Your task to perform on an android device: turn on javascript in the chrome app Image 0: 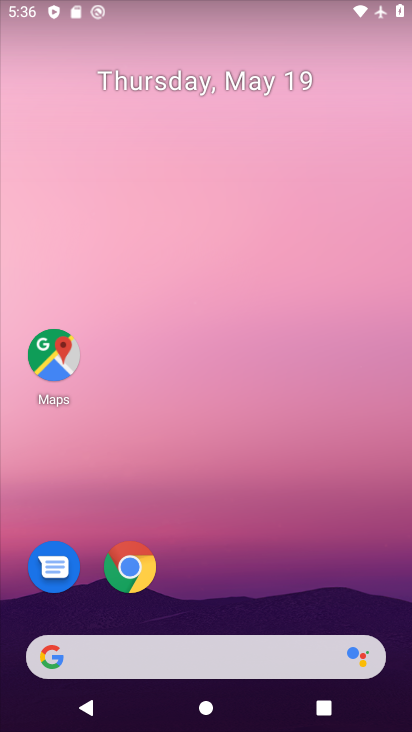
Step 0: drag from (319, 715) to (195, 91)
Your task to perform on an android device: turn on javascript in the chrome app Image 1: 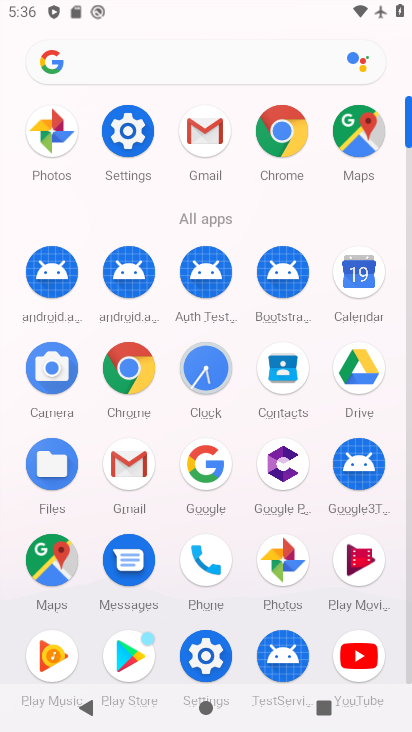
Step 1: click (263, 133)
Your task to perform on an android device: turn on javascript in the chrome app Image 2: 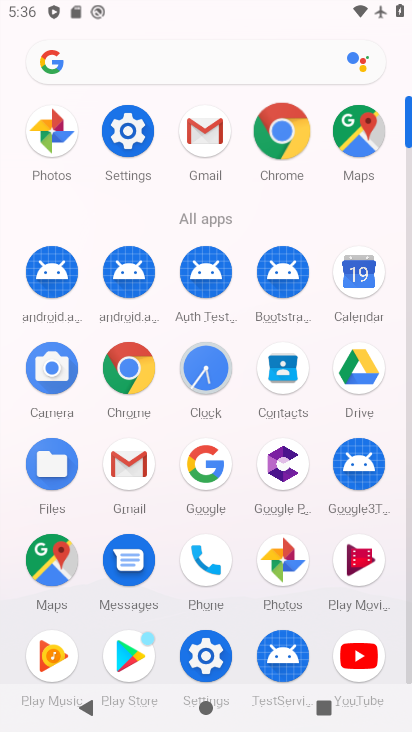
Step 2: click (263, 132)
Your task to perform on an android device: turn on javascript in the chrome app Image 3: 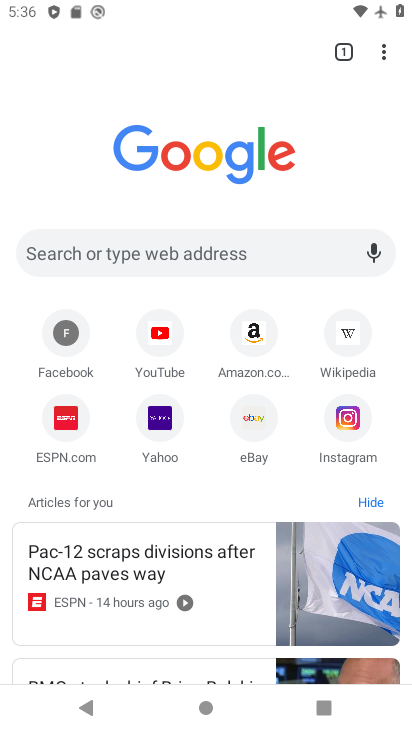
Step 3: drag from (383, 54) to (190, 436)
Your task to perform on an android device: turn on javascript in the chrome app Image 4: 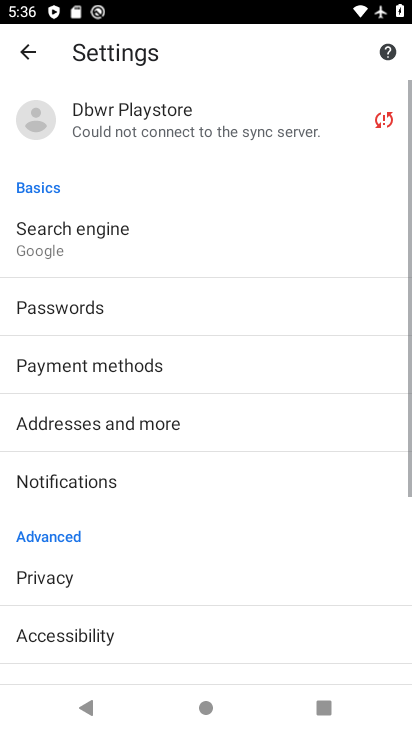
Step 4: drag from (82, 516) to (61, 190)
Your task to perform on an android device: turn on javascript in the chrome app Image 5: 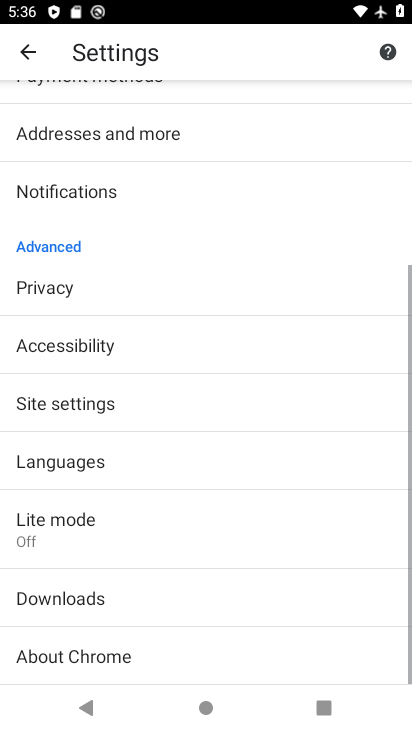
Step 5: drag from (100, 518) to (100, 78)
Your task to perform on an android device: turn on javascript in the chrome app Image 6: 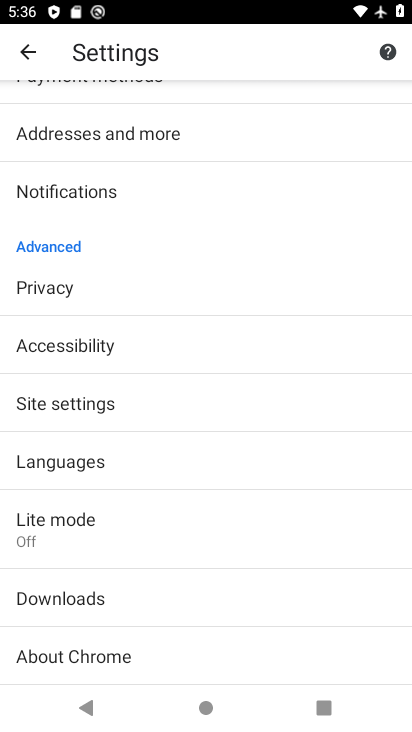
Step 6: click (39, 399)
Your task to perform on an android device: turn on javascript in the chrome app Image 7: 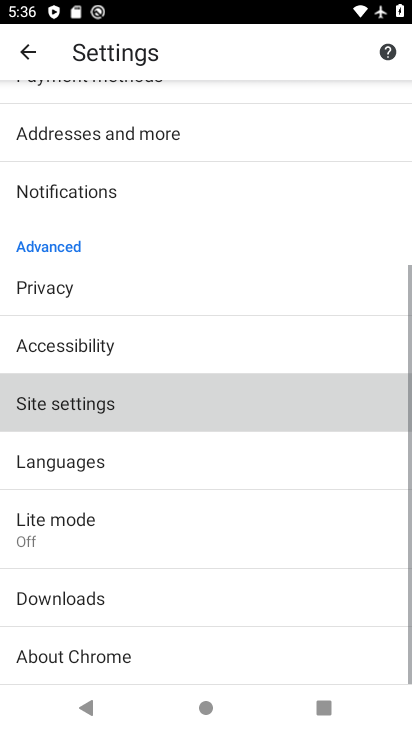
Step 7: click (43, 403)
Your task to perform on an android device: turn on javascript in the chrome app Image 8: 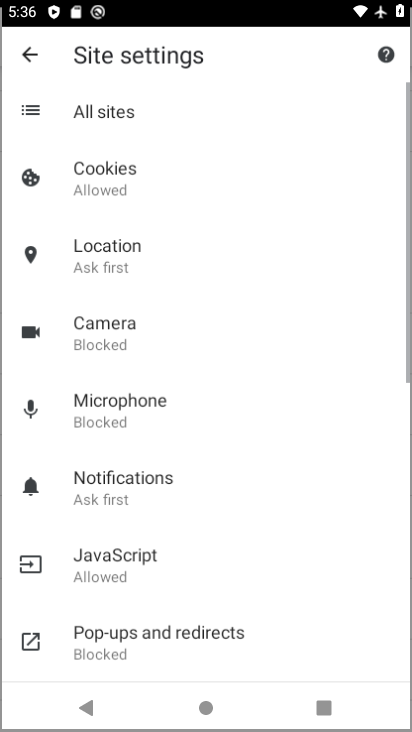
Step 8: click (47, 402)
Your task to perform on an android device: turn on javascript in the chrome app Image 9: 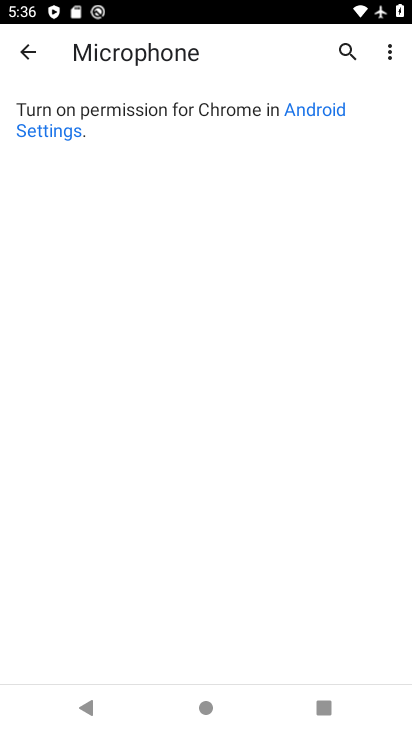
Step 9: click (24, 55)
Your task to perform on an android device: turn on javascript in the chrome app Image 10: 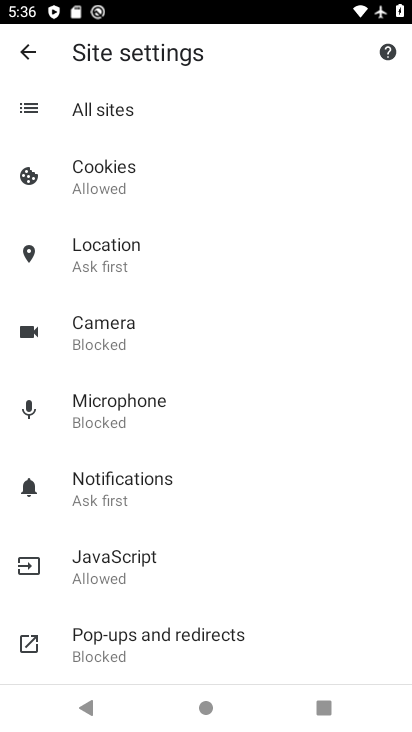
Step 10: click (107, 568)
Your task to perform on an android device: turn on javascript in the chrome app Image 11: 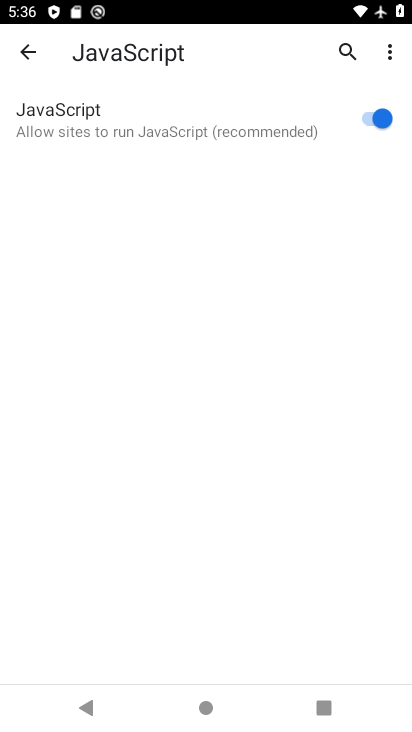
Step 11: task complete